Your task to perform on an android device: open a new tab in the chrome app Image 0: 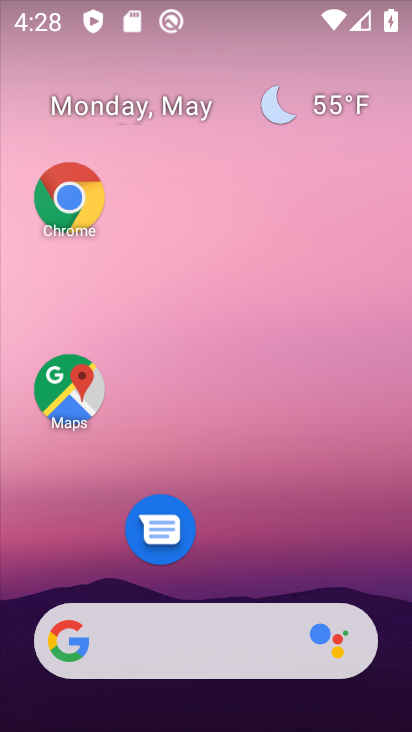
Step 0: drag from (233, 692) to (225, 213)
Your task to perform on an android device: open a new tab in the chrome app Image 1: 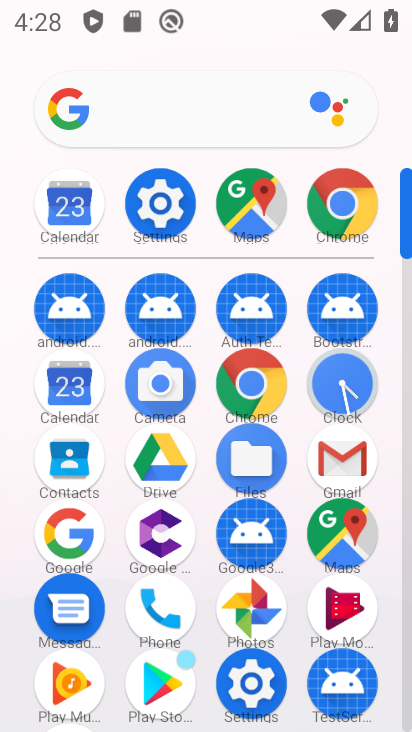
Step 1: click (245, 396)
Your task to perform on an android device: open a new tab in the chrome app Image 2: 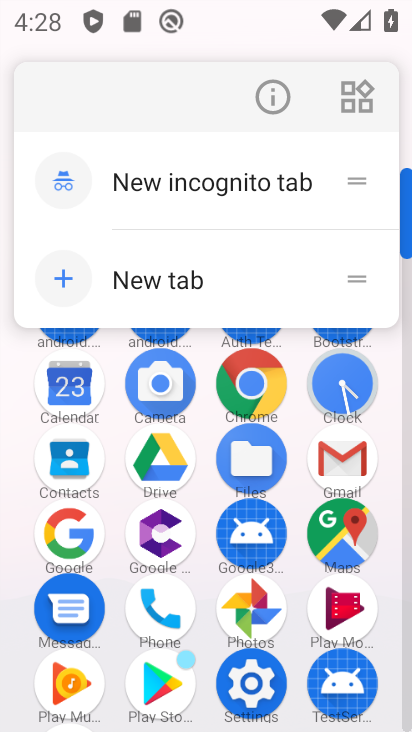
Step 2: click (263, 400)
Your task to perform on an android device: open a new tab in the chrome app Image 3: 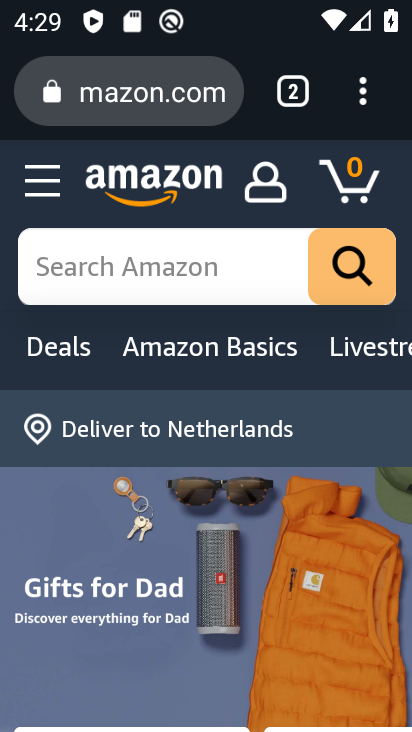
Step 3: drag from (314, 90) to (262, 269)
Your task to perform on an android device: open a new tab in the chrome app Image 4: 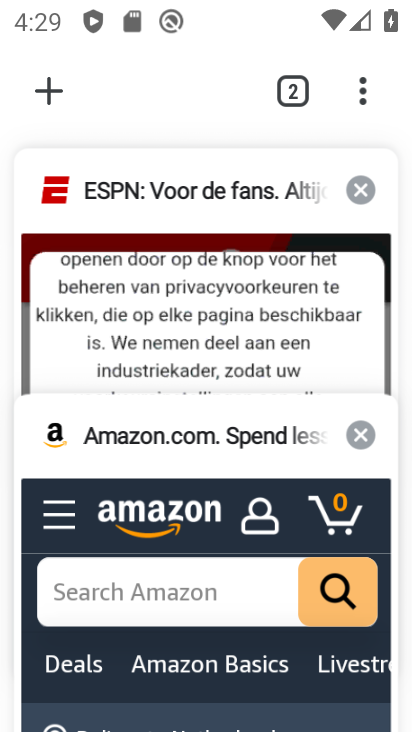
Step 4: click (35, 102)
Your task to perform on an android device: open a new tab in the chrome app Image 5: 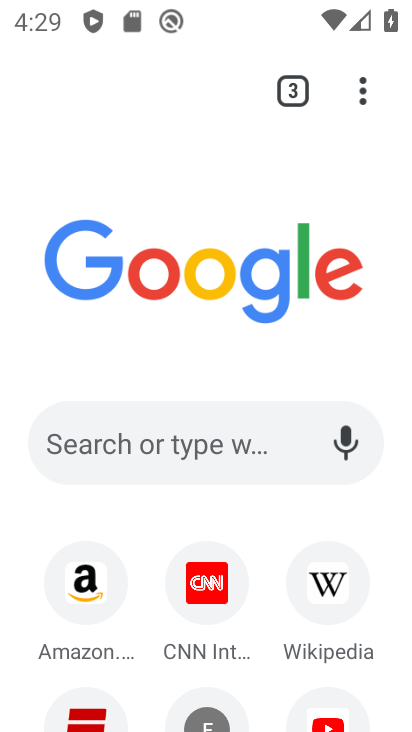
Step 5: task complete